Your task to perform on an android device: change text size in settings app Image 0: 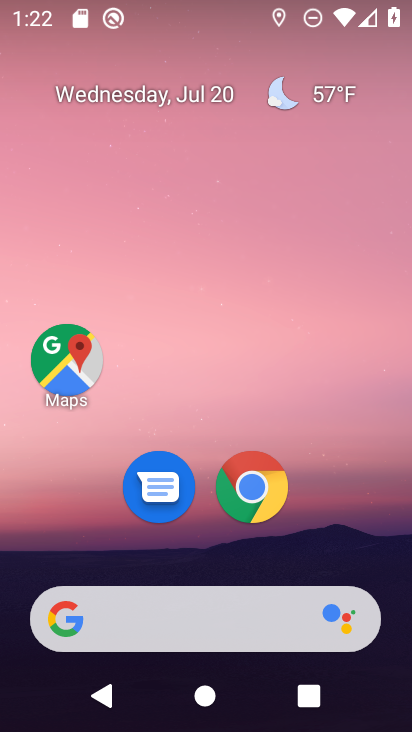
Step 0: drag from (381, 522) to (408, 347)
Your task to perform on an android device: change text size in settings app Image 1: 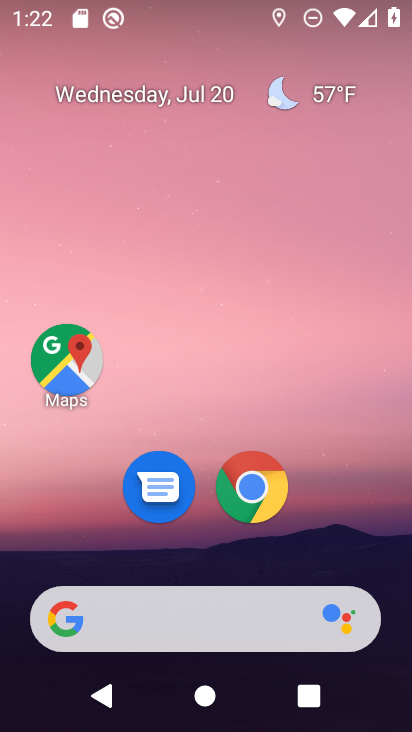
Step 1: drag from (337, 524) to (351, 106)
Your task to perform on an android device: change text size in settings app Image 2: 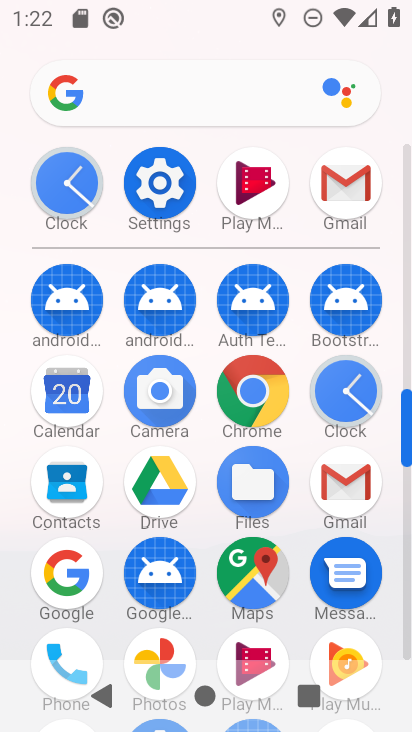
Step 2: click (193, 195)
Your task to perform on an android device: change text size in settings app Image 3: 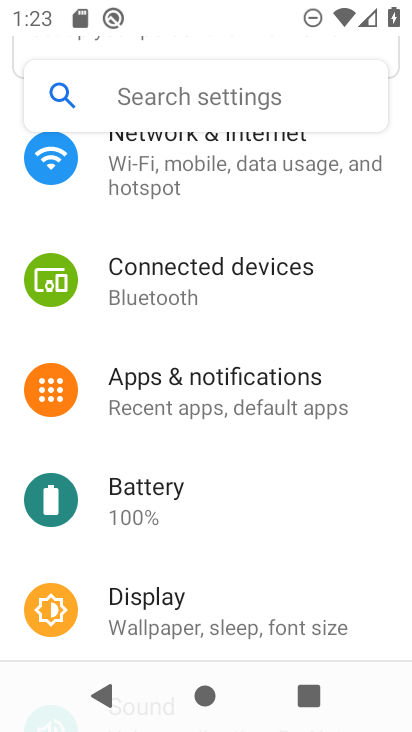
Step 3: drag from (360, 472) to (396, 351)
Your task to perform on an android device: change text size in settings app Image 4: 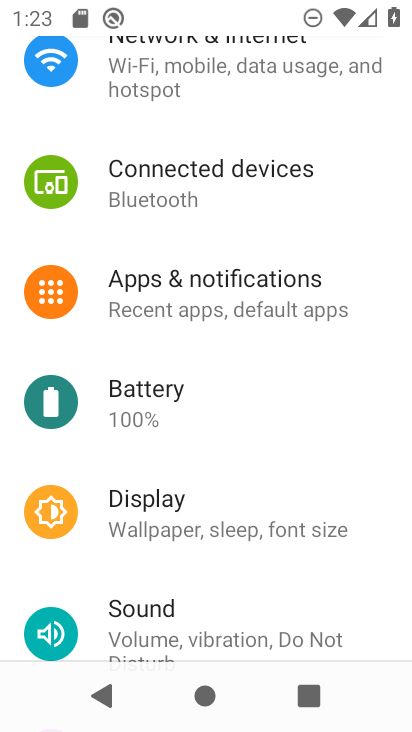
Step 4: drag from (390, 476) to (386, 352)
Your task to perform on an android device: change text size in settings app Image 5: 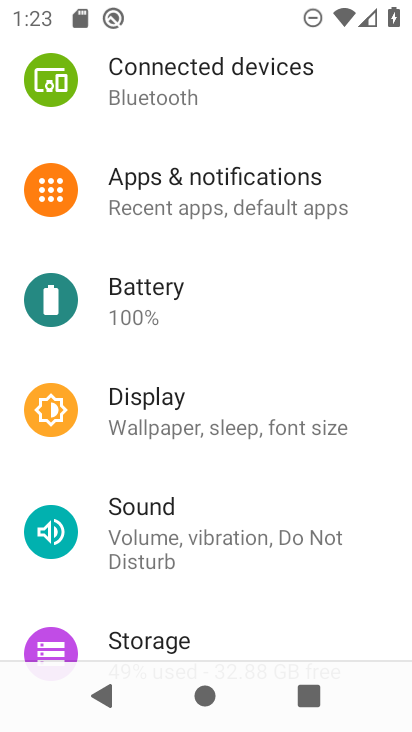
Step 5: drag from (355, 477) to (396, 335)
Your task to perform on an android device: change text size in settings app Image 6: 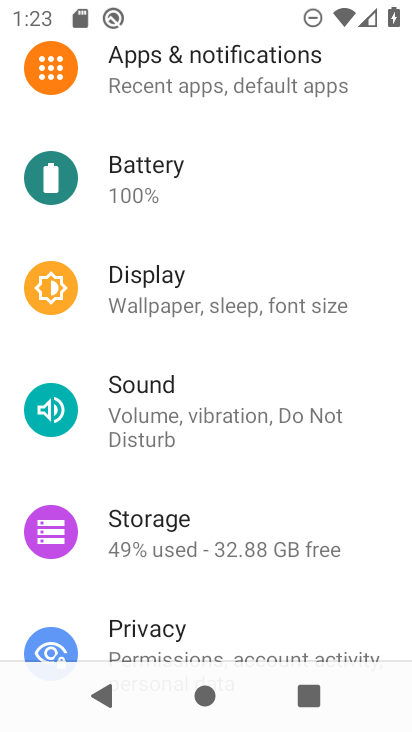
Step 6: click (271, 275)
Your task to perform on an android device: change text size in settings app Image 7: 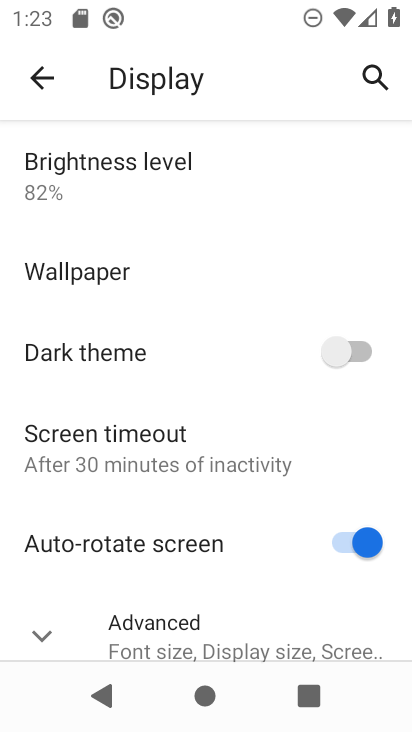
Step 7: drag from (266, 485) to (216, 287)
Your task to perform on an android device: change text size in settings app Image 8: 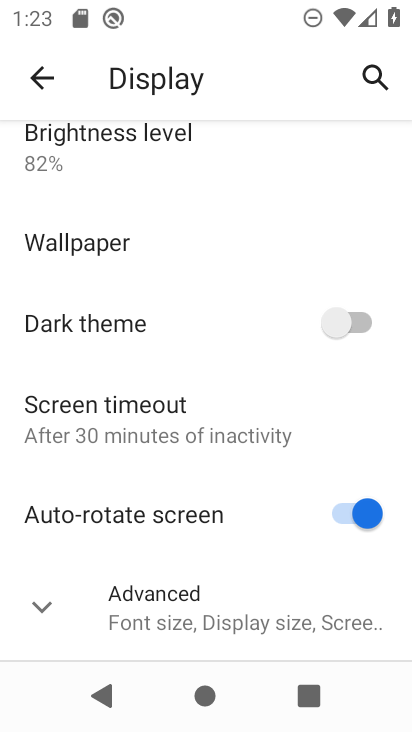
Step 8: click (187, 602)
Your task to perform on an android device: change text size in settings app Image 9: 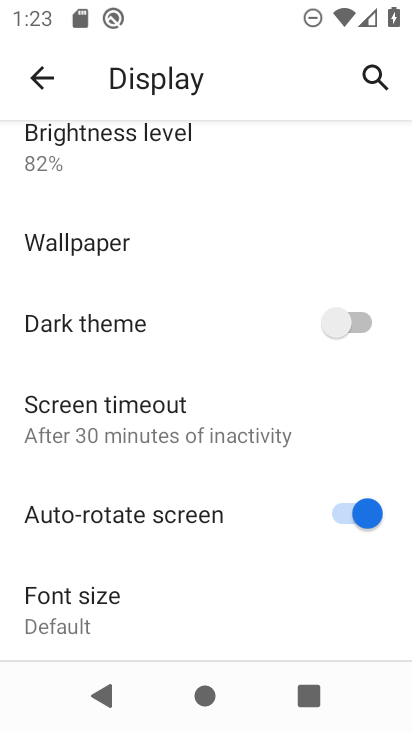
Step 9: drag from (232, 591) to (239, 462)
Your task to perform on an android device: change text size in settings app Image 10: 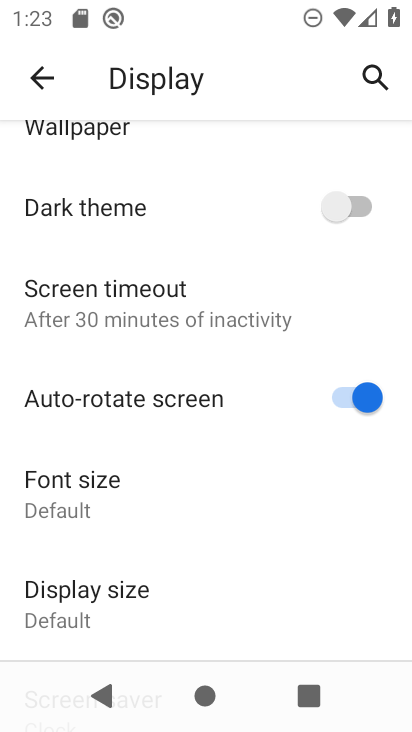
Step 10: click (144, 482)
Your task to perform on an android device: change text size in settings app Image 11: 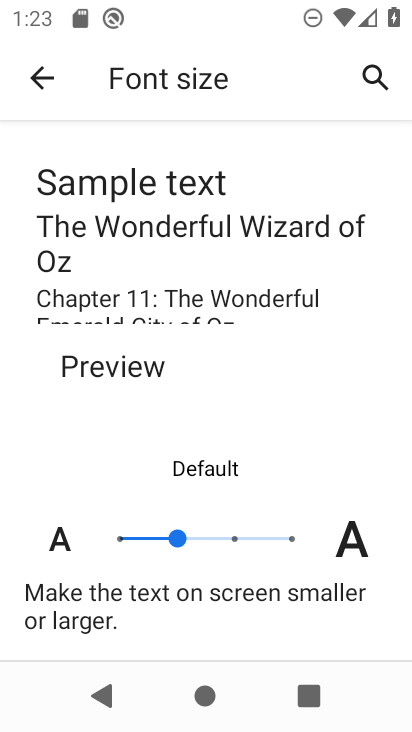
Step 11: click (282, 538)
Your task to perform on an android device: change text size in settings app Image 12: 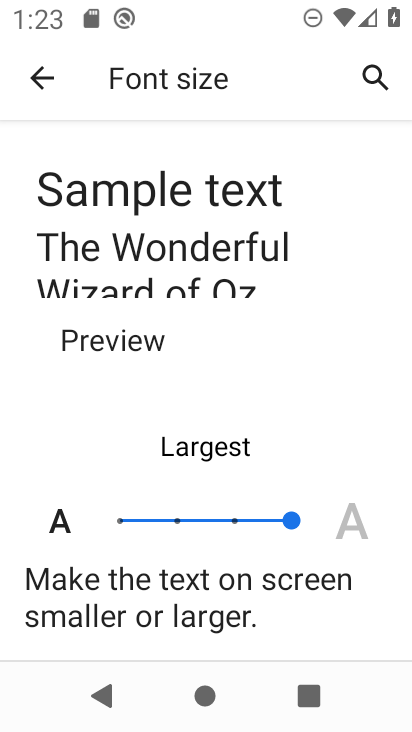
Step 12: task complete